Your task to perform on an android device: toggle notification dots Image 0: 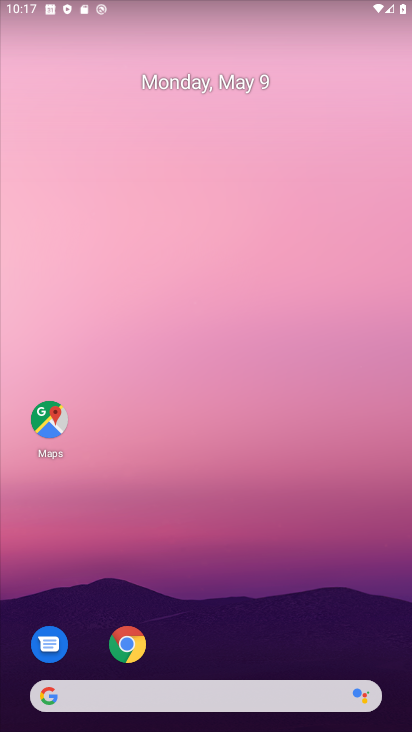
Step 0: drag from (221, 648) to (298, 167)
Your task to perform on an android device: toggle notification dots Image 1: 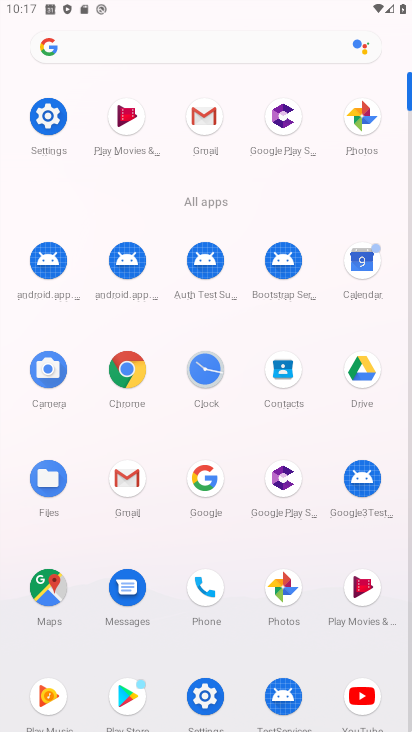
Step 1: click (42, 115)
Your task to perform on an android device: toggle notification dots Image 2: 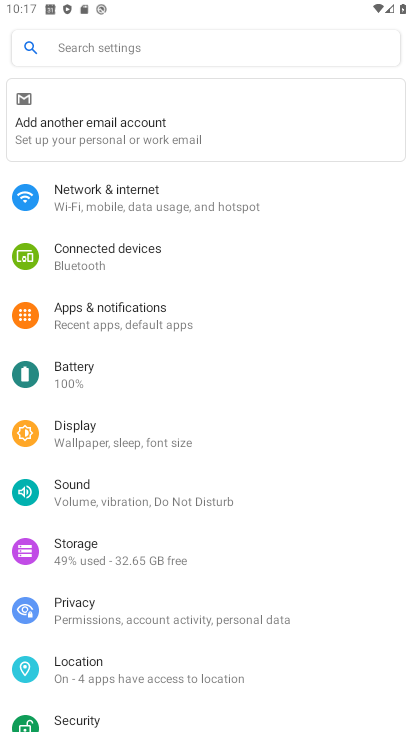
Step 2: click (150, 306)
Your task to perform on an android device: toggle notification dots Image 3: 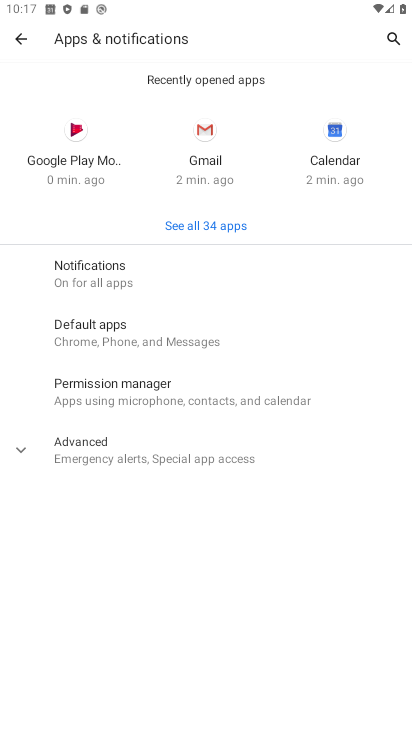
Step 3: click (92, 260)
Your task to perform on an android device: toggle notification dots Image 4: 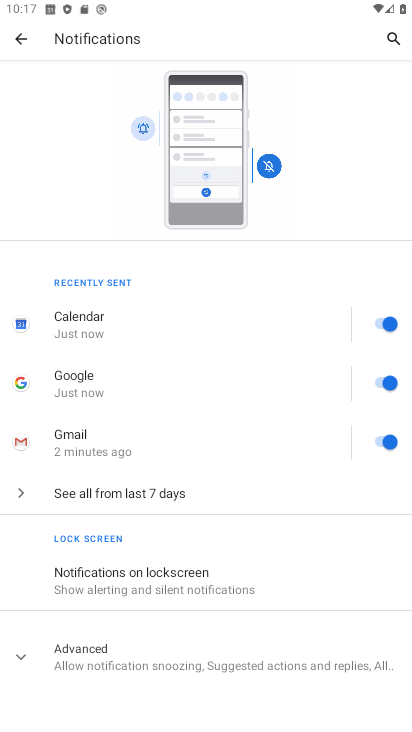
Step 4: click (132, 659)
Your task to perform on an android device: toggle notification dots Image 5: 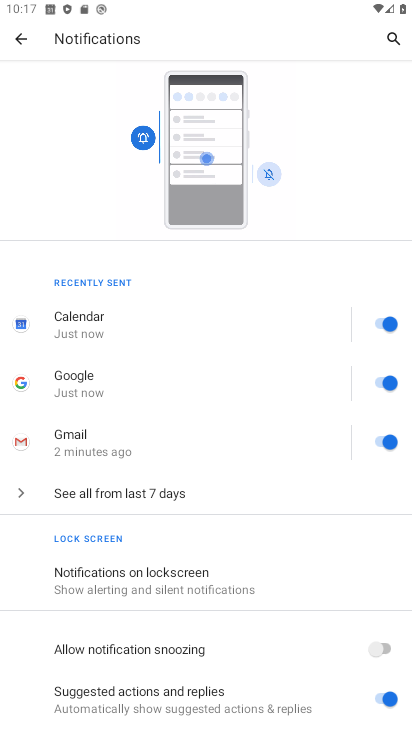
Step 5: drag from (206, 621) to (273, 279)
Your task to perform on an android device: toggle notification dots Image 6: 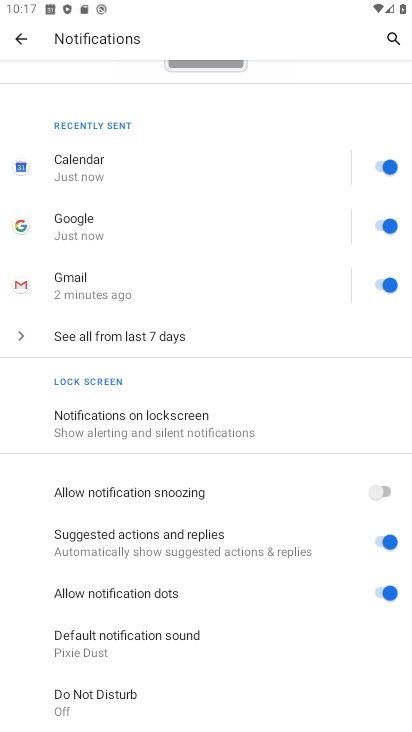
Step 6: click (377, 587)
Your task to perform on an android device: toggle notification dots Image 7: 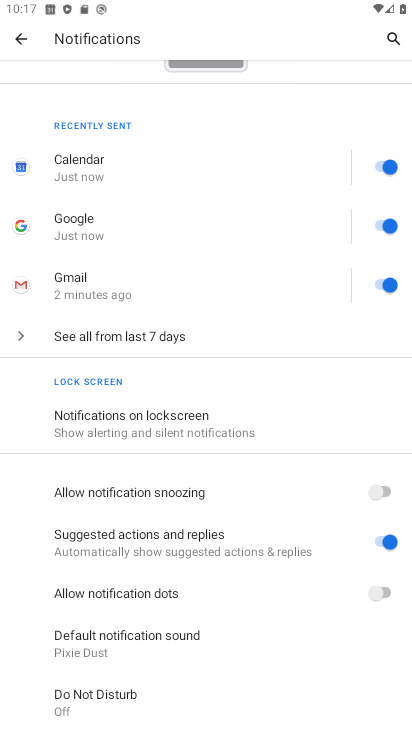
Step 7: task complete